Your task to perform on an android device: turn off location history Image 0: 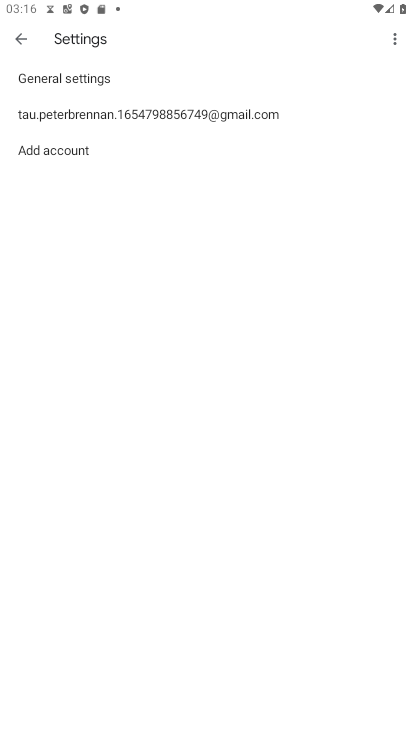
Step 0: drag from (336, 707) to (323, 340)
Your task to perform on an android device: turn off location history Image 1: 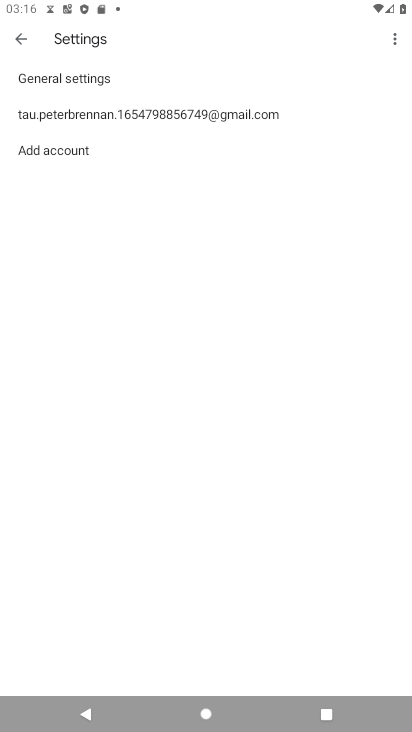
Step 1: click (15, 37)
Your task to perform on an android device: turn off location history Image 2: 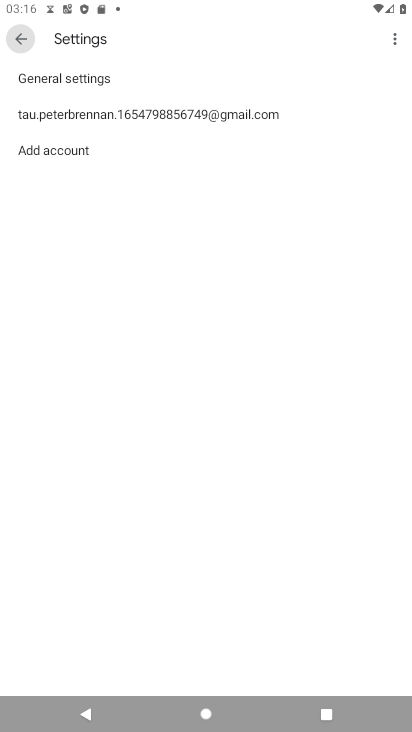
Step 2: click (23, 38)
Your task to perform on an android device: turn off location history Image 3: 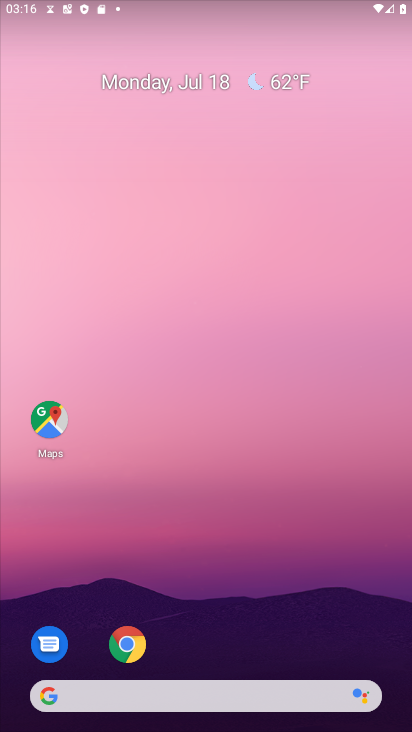
Step 3: drag from (253, 582) to (189, 135)
Your task to perform on an android device: turn off location history Image 4: 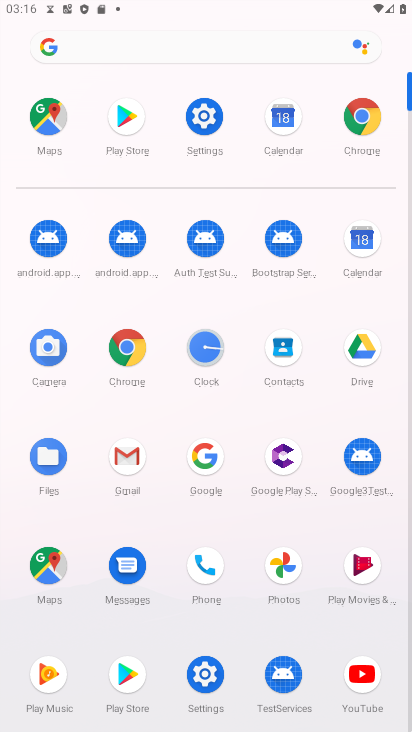
Step 4: click (205, 103)
Your task to perform on an android device: turn off location history Image 5: 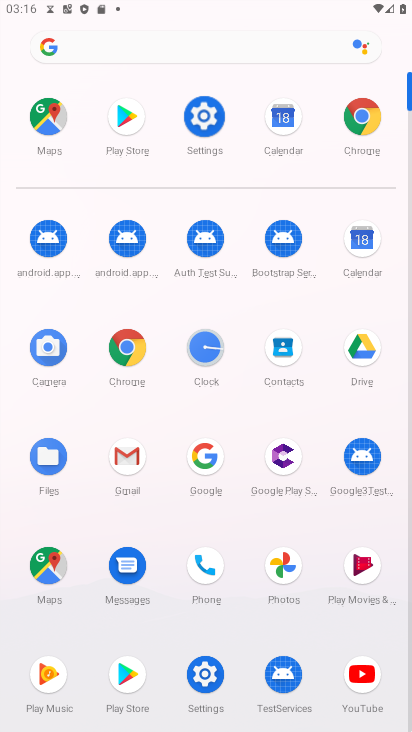
Step 5: click (205, 103)
Your task to perform on an android device: turn off location history Image 6: 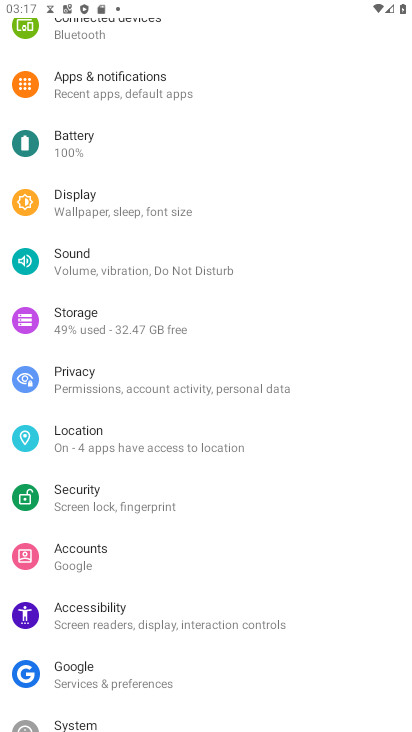
Step 6: click (111, 440)
Your task to perform on an android device: turn off location history Image 7: 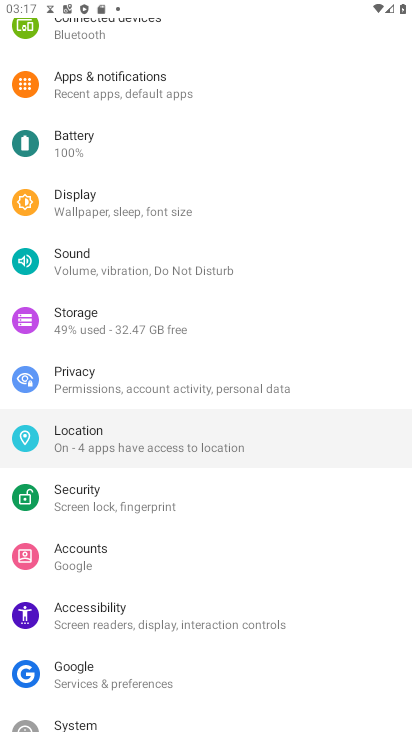
Step 7: click (111, 441)
Your task to perform on an android device: turn off location history Image 8: 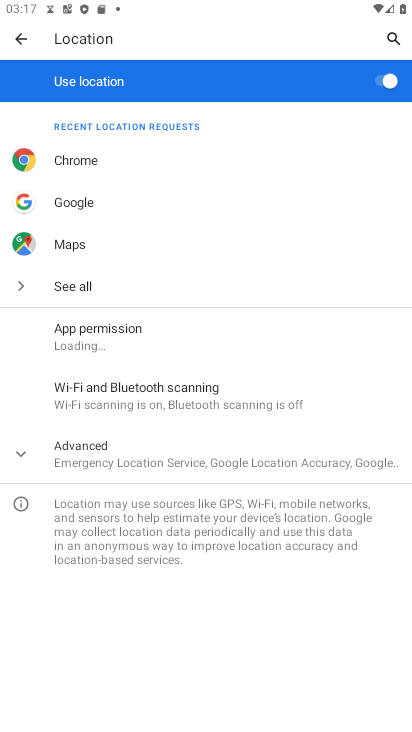
Step 8: click (109, 456)
Your task to perform on an android device: turn off location history Image 9: 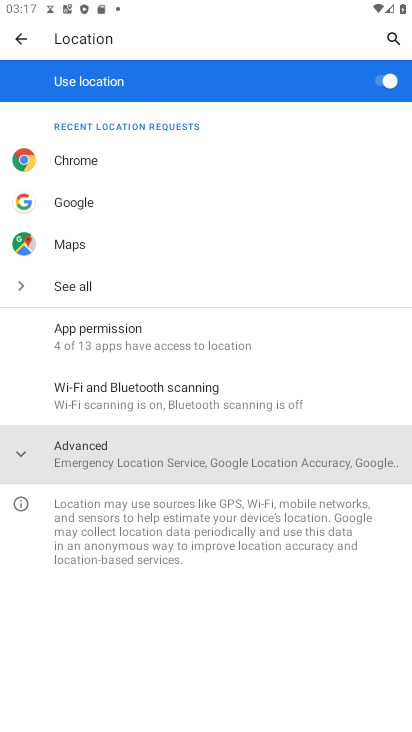
Step 9: click (109, 456)
Your task to perform on an android device: turn off location history Image 10: 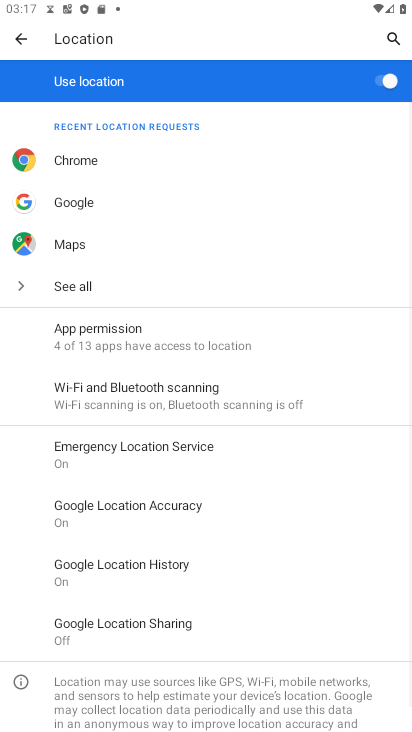
Step 10: click (159, 544)
Your task to perform on an android device: turn off location history Image 11: 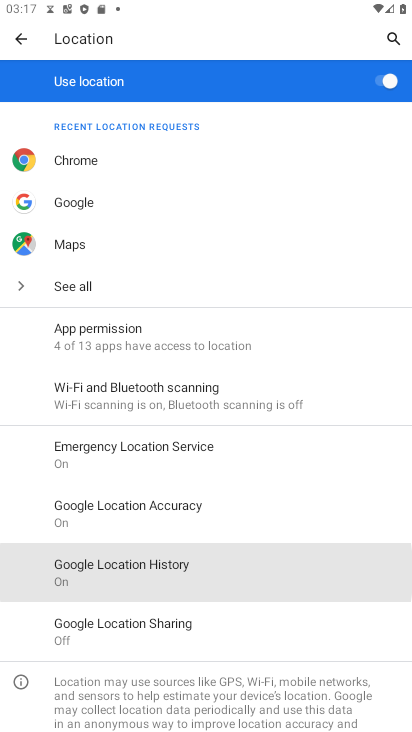
Step 11: click (166, 561)
Your task to perform on an android device: turn off location history Image 12: 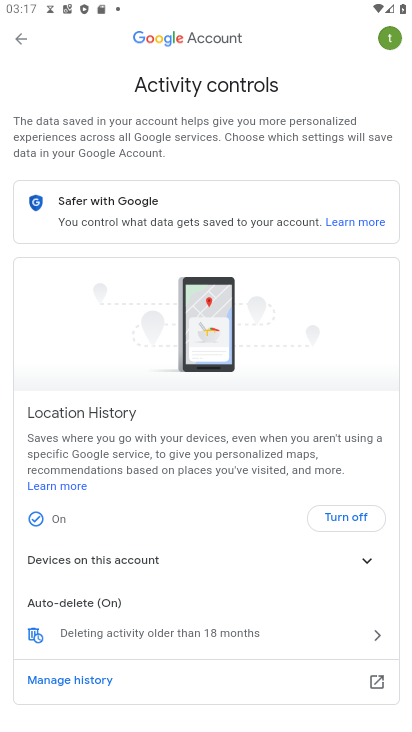
Step 12: click (346, 518)
Your task to perform on an android device: turn off location history Image 13: 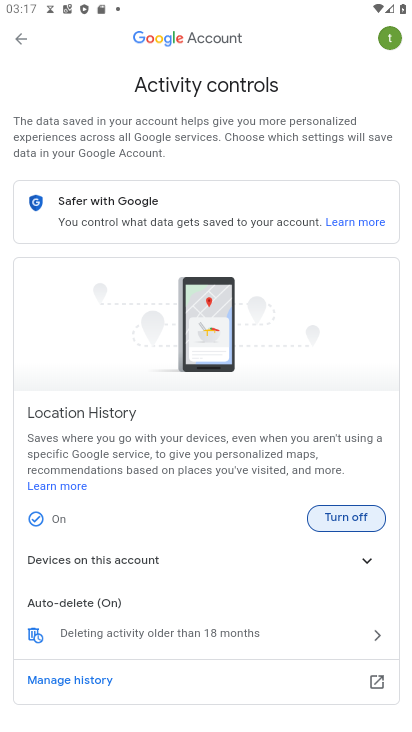
Step 13: task complete